Your task to perform on an android device: turn on wifi Image 0: 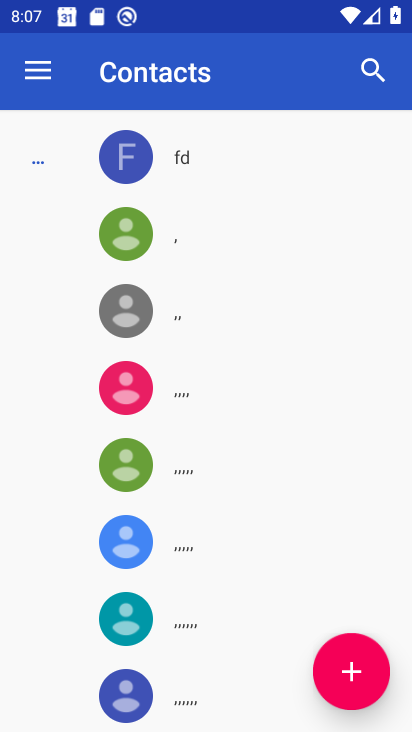
Step 0: press home button
Your task to perform on an android device: turn on wifi Image 1: 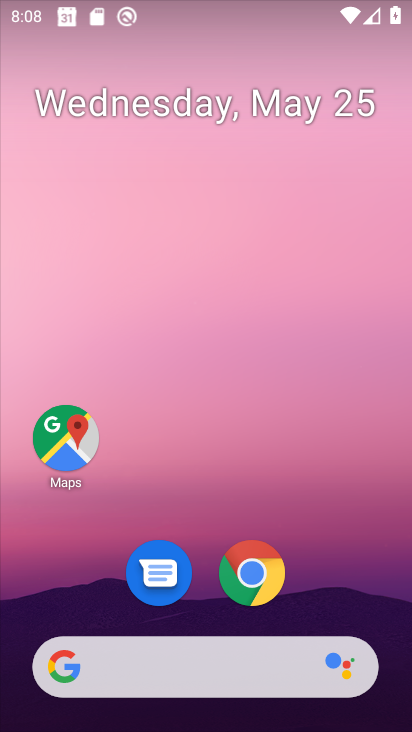
Step 1: drag from (384, 711) to (276, 114)
Your task to perform on an android device: turn on wifi Image 2: 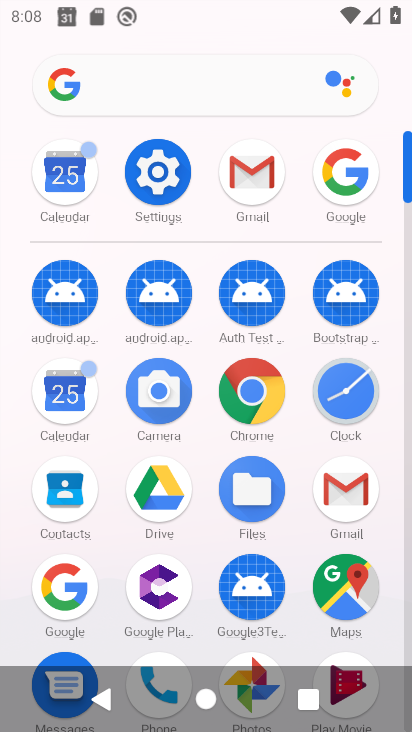
Step 2: click (158, 201)
Your task to perform on an android device: turn on wifi Image 3: 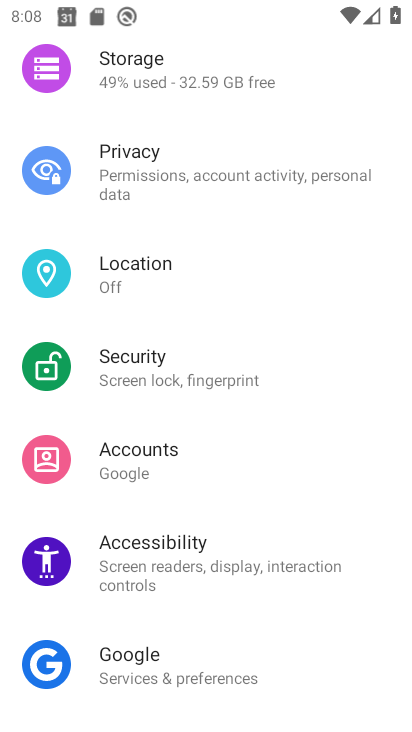
Step 3: drag from (295, 83) to (289, 656)
Your task to perform on an android device: turn on wifi Image 4: 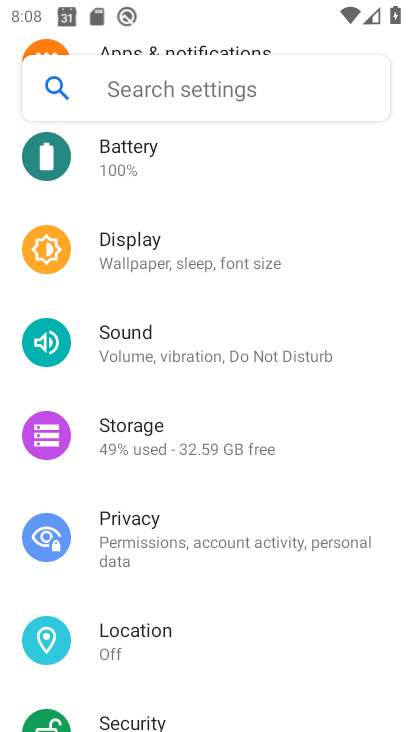
Step 4: click (274, 683)
Your task to perform on an android device: turn on wifi Image 5: 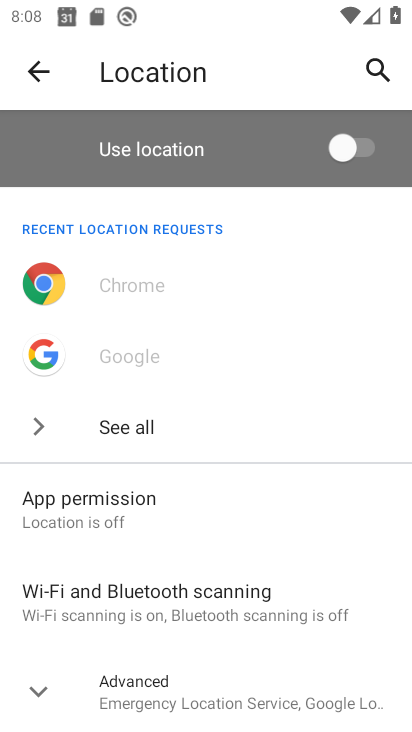
Step 5: click (29, 65)
Your task to perform on an android device: turn on wifi Image 6: 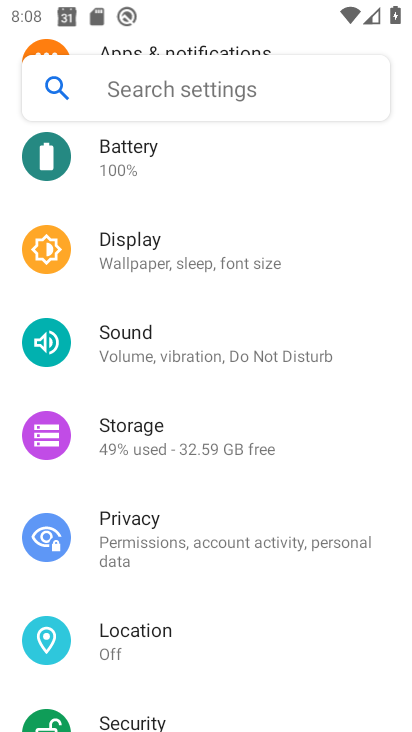
Step 6: drag from (318, 266) to (319, 643)
Your task to perform on an android device: turn on wifi Image 7: 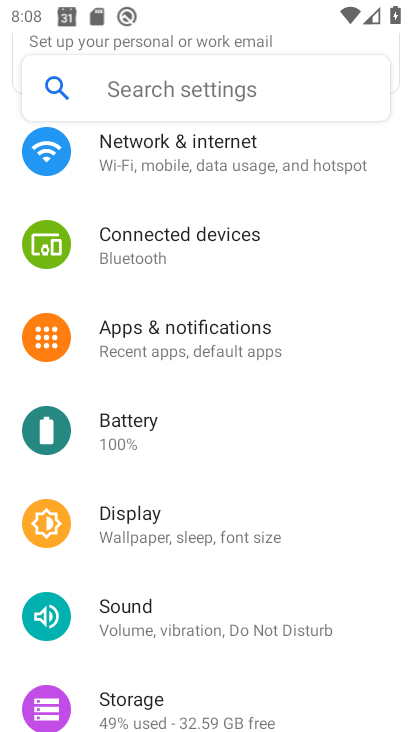
Step 7: drag from (353, 221) to (347, 643)
Your task to perform on an android device: turn on wifi Image 8: 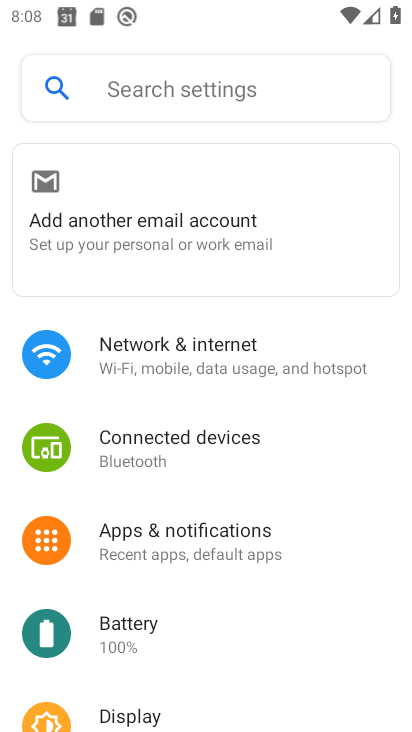
Step 8: click (130, 351)
Your task to perform on an android device: turn on wifi Image 9: 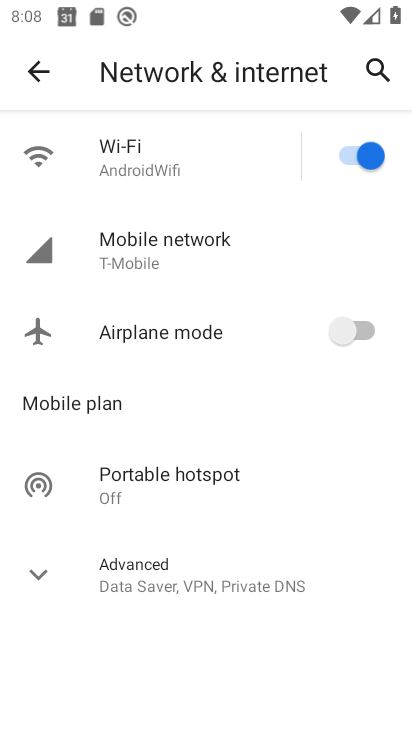
Step 9: task complete